Your task to perform on an android device: toggle airplane mode Image 0: 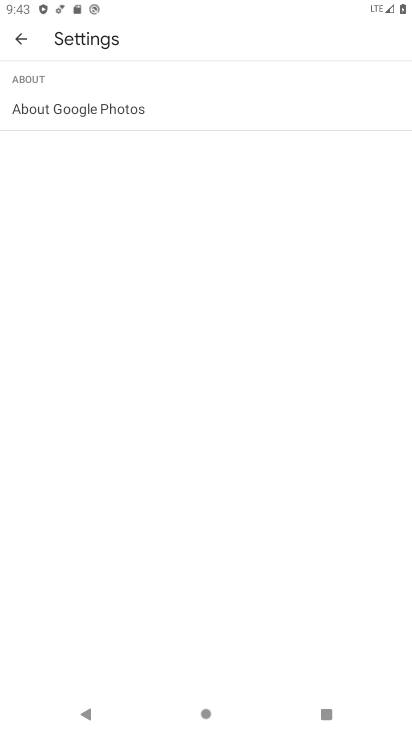
Step 0: press home button
Your task to perform on an android device: toggle airplane mode Image 1: 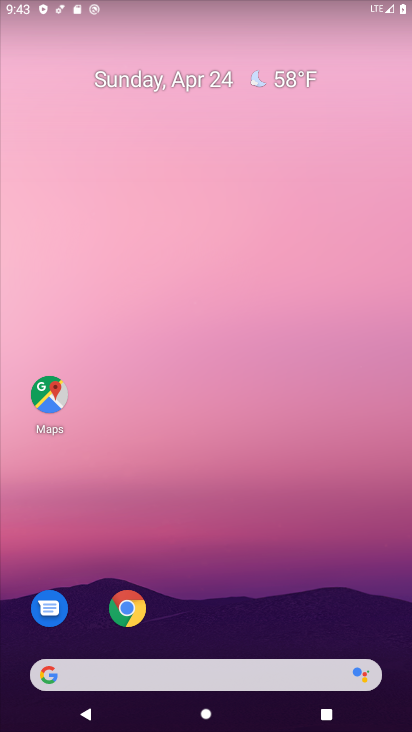
Step 1: drag from (324, 506) to (233, 53)
Your task to perform on an android device: toggle airplane mode Image 2: 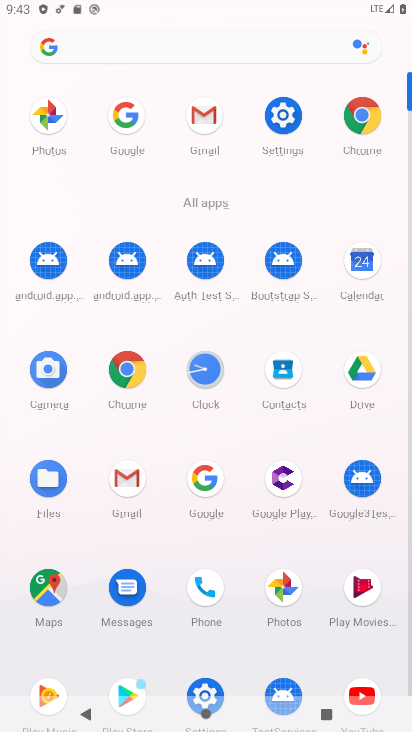
Step 2: click (286, 122)
Your task to perform on an android device: toggle airplane mode Image 3: 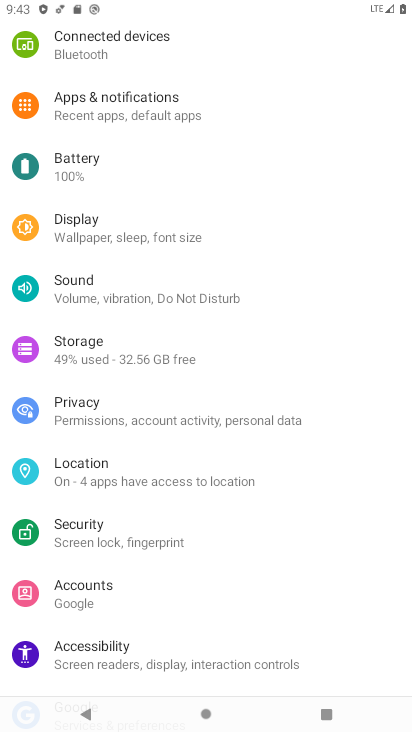
Step 3: drag from (202, 156) to (181, 542)
Your task to perform on an android device: toggle airplane mode Image 4: 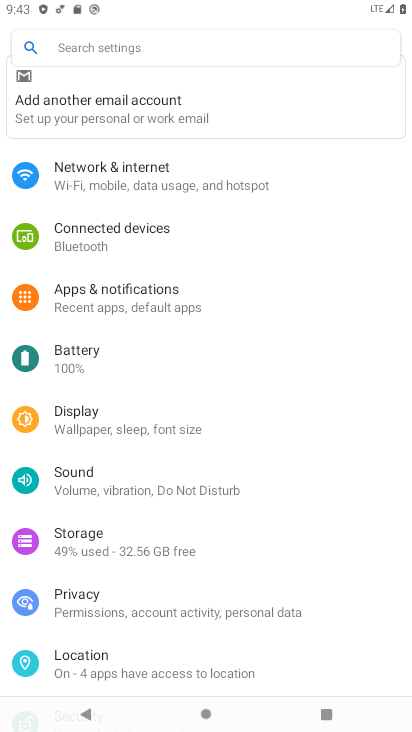
Step 4: drag from (218, 230) to (207, 576)
Your task to perform on an android device: toggle airplane mode Image 5: 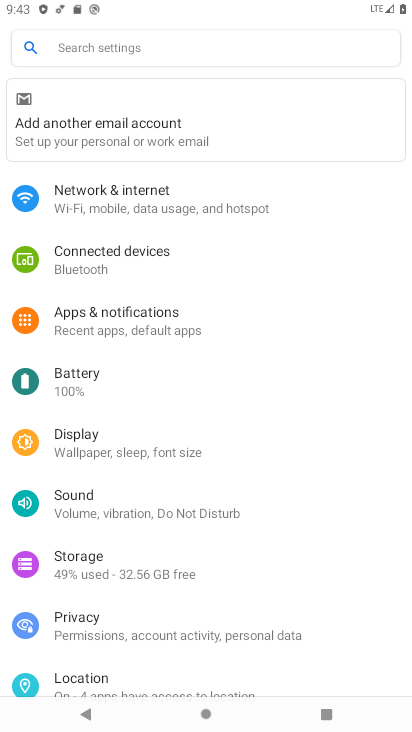
Step 5: click (166, 197)
Your task to perform on an android device: toggle airplane mode Image 6: 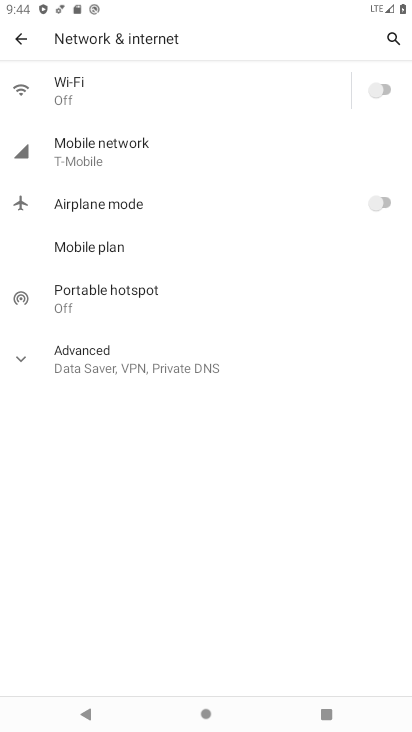
Step 6: click (388, 202)
Your task to perform on an android device: toggle airplane mode Image 7: 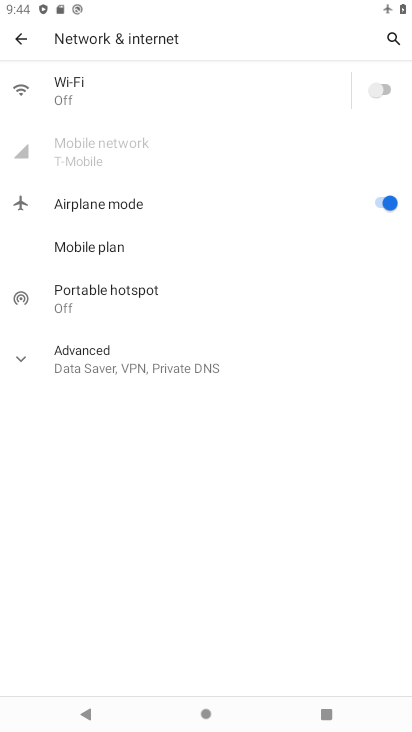
Step 7: task complete